Your task to perform on an android device: Play the last video I watched on Youtube Image 0: 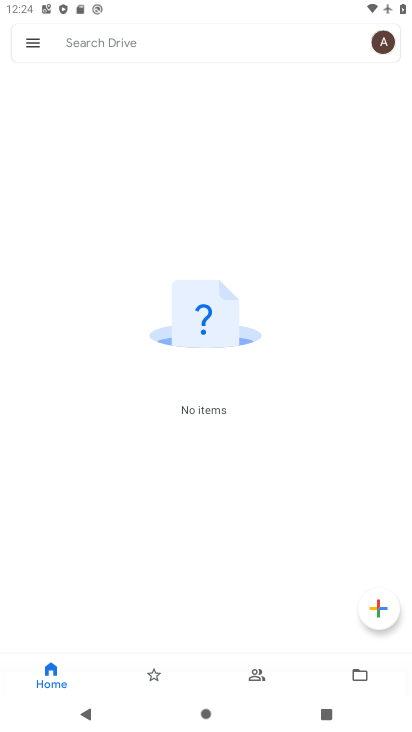
Step 0: press home button
Your task to perform on an android device: Play the last video I watched on Youtube Image 1: 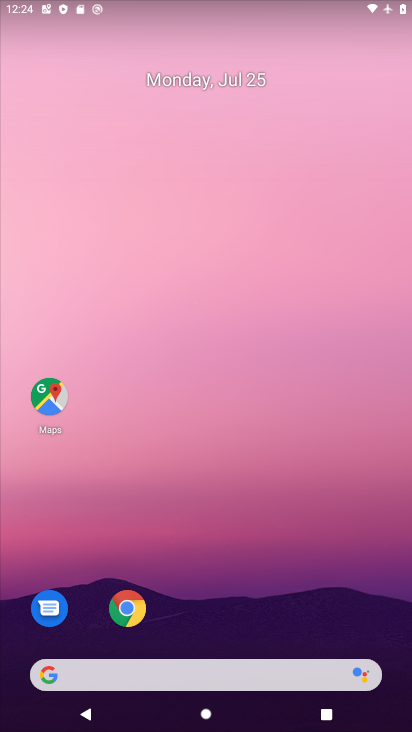
Step 1: drag from (221, 626) to (28, 320)
Your task to perform on an android device: Play the last video I watched on Youtube Image 2: 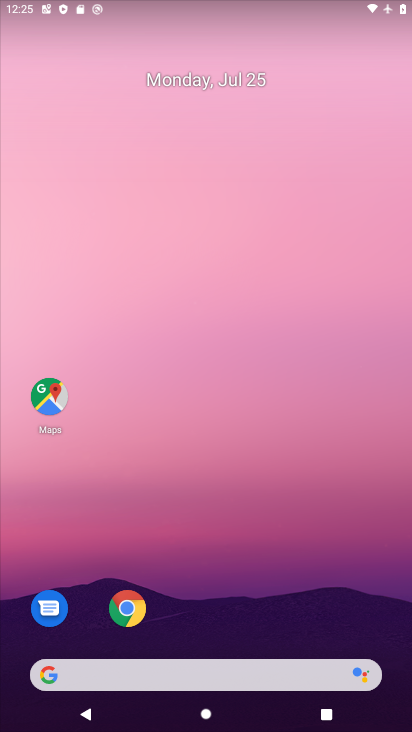
Step 2: drag from (233, 619) to (214, 72)
Your task to perform on an android device: Play the last video I watched on Youtube Image 3: 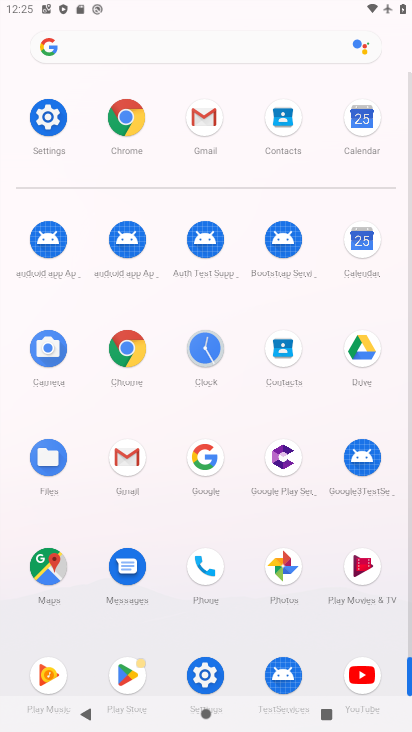
Step 3: drag from (266, 464) to (276, 137)
Your task to perform on an android device: Play the last video I watched on Youtube Image 4: 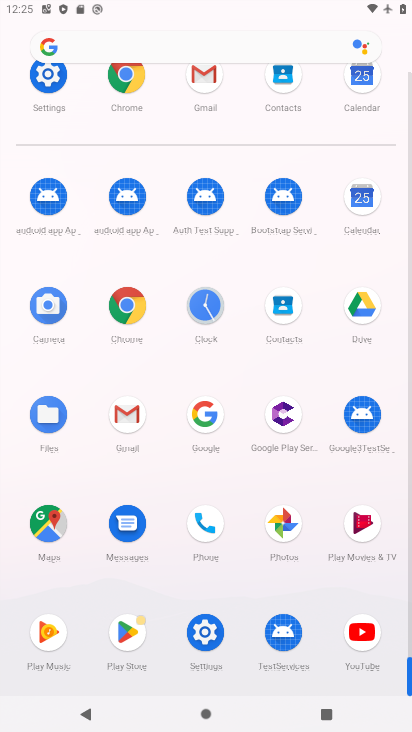
Step 4: click (355, 638)
Your task to perform on an android device: Play the last video I watched on Youtube Image 5: 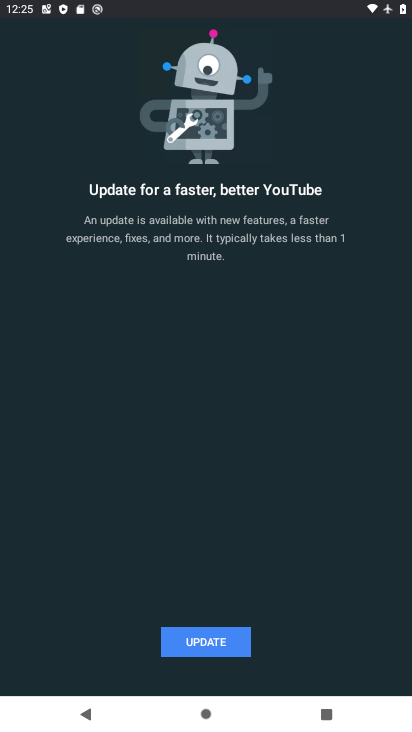
Step 5: click (225, 649)
Your task to perform on an android device: Play the last video I watched on Youtube Image 6: 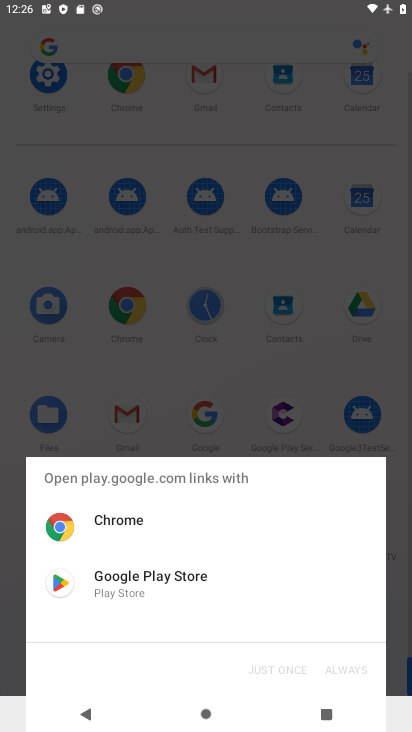
Step 6: click (102, 580)
Your task to perform on an android device: Play the last video I watched on Youtube Image 7: 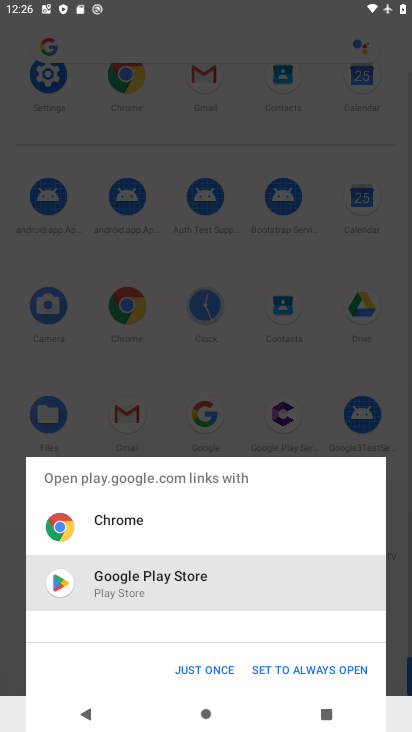
Step 7: click (201, 665)
Your task to perform on an android device: Play the last video I watched on Youtube Image 8: 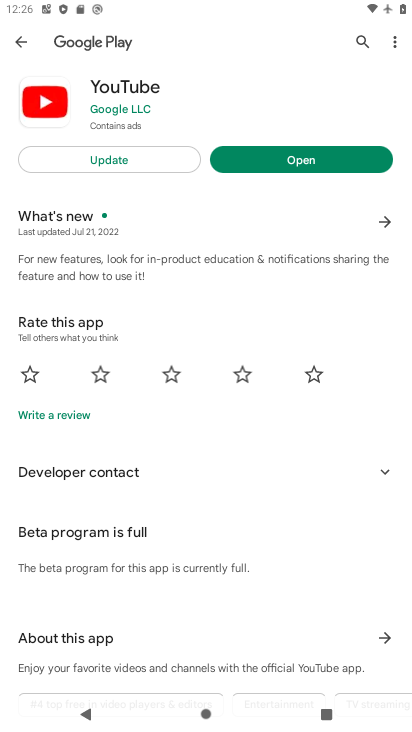
Step 8: click (131, 154)
Your task to perform on an android device: Play the last video I watched on Youtube Image 9: 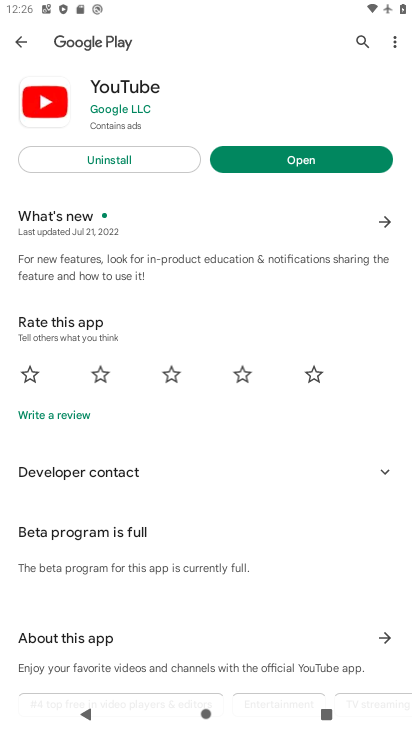
Step 9: task complete